Your task to perform on an android device: check android version Image 0: 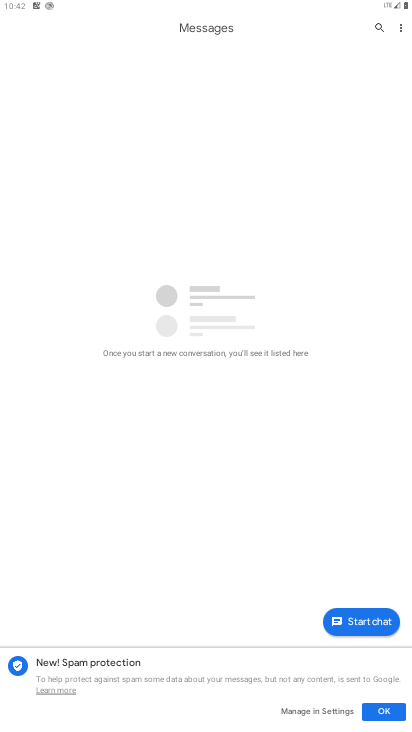
Step 0: press home button
Your task to perform on an android device: check android version Image 1: 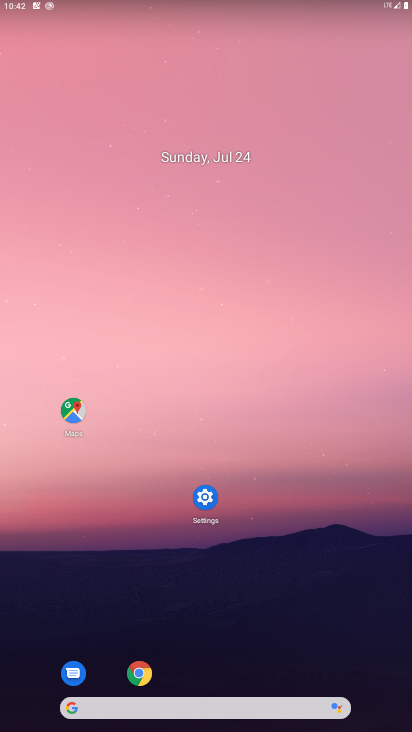
Step 1: click (201, 500)
Your task to perform on an android device: check android version Image 2: 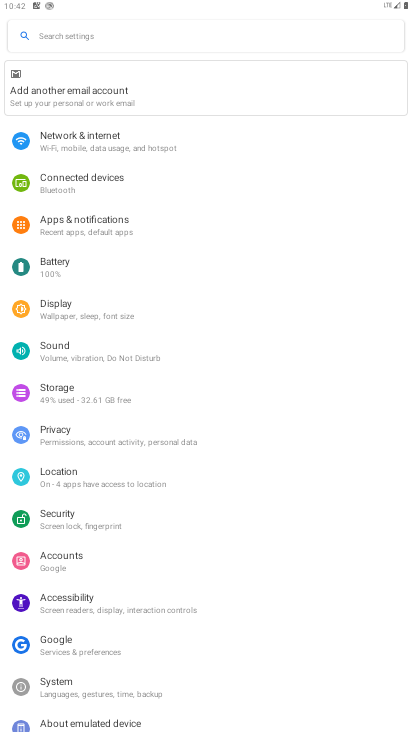
Step 2: drag from (277, 608) to (275, 466)
Your task to perform on an android device: check android version Image 3: 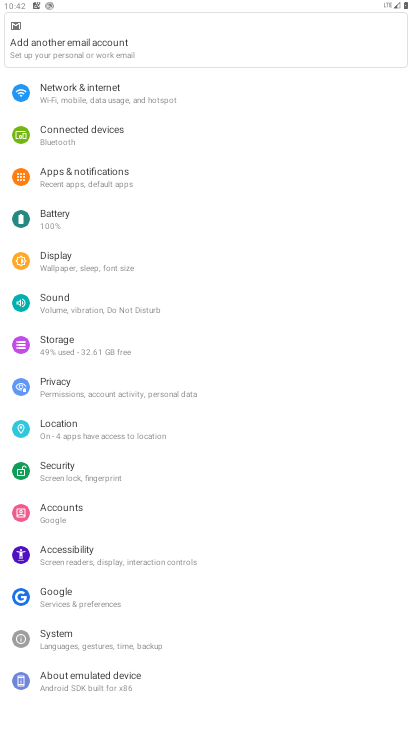
Step 3: click (102, 683)
Your task to perform on an android device: check android version Image 4: 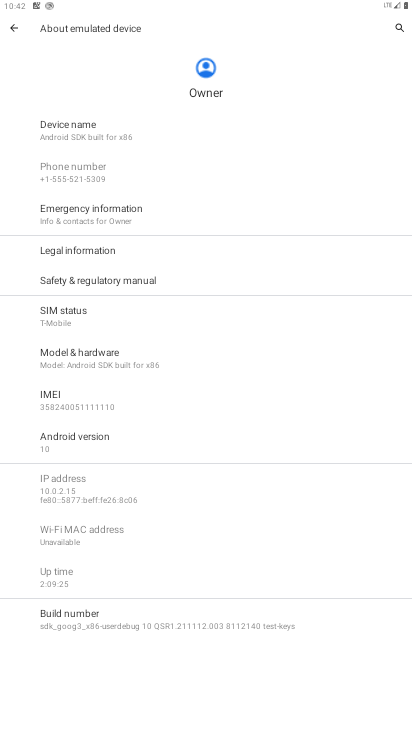
Step 4: task complete